Your task to perform on an android device: turn on priority inbox in the gmail app Image 0: 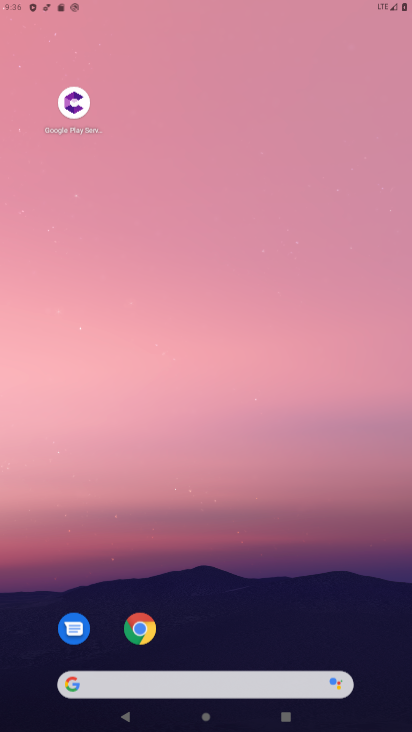
Step 0: press home button
Your task to perform on an android device: turn on priority inbox in the gmail app Image 1: 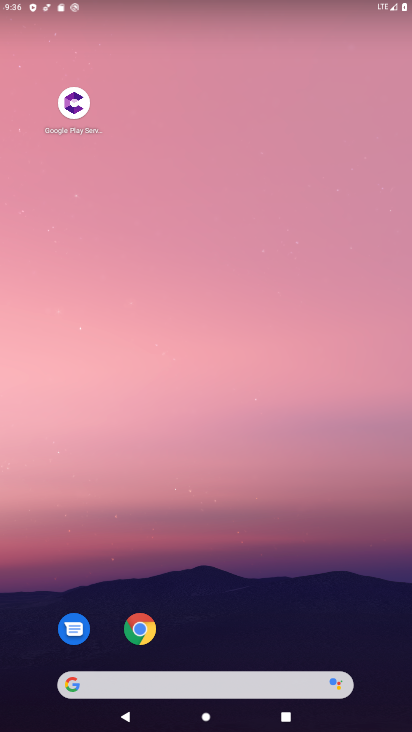
Step 1: drag from (279, 595) to (339, 5)
Your task to perform on an android device: turn on priority inbox in the gmail app Image 2: 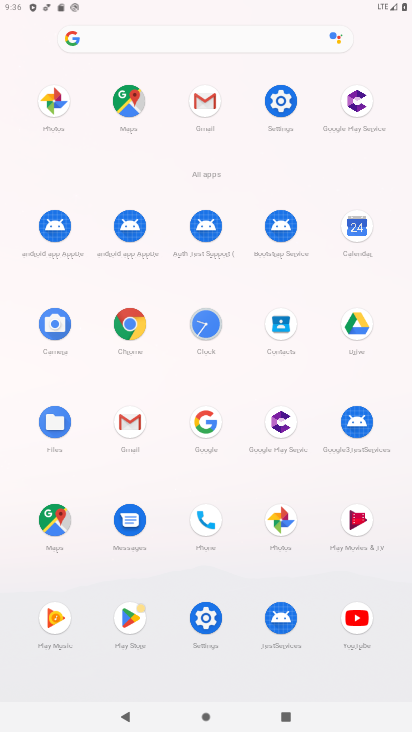
Step 2: click (203, 102)
Your task to perform on an android device: turn on priority inbox in the gmail app Image 3: 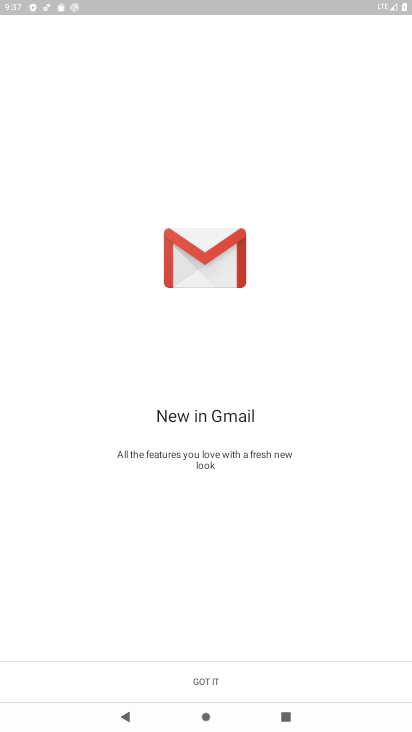
Step 3: click (209, 681)
Your task to perform on an android device: turn on priority inbox in the gmail app Image 4: 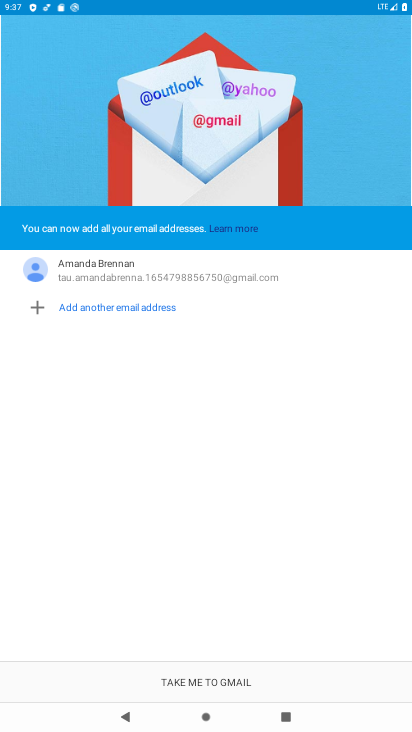
Step 4: click (209, 678)
Your task to perform on an android device: turn on priority inbox in the gmail app Image 5: 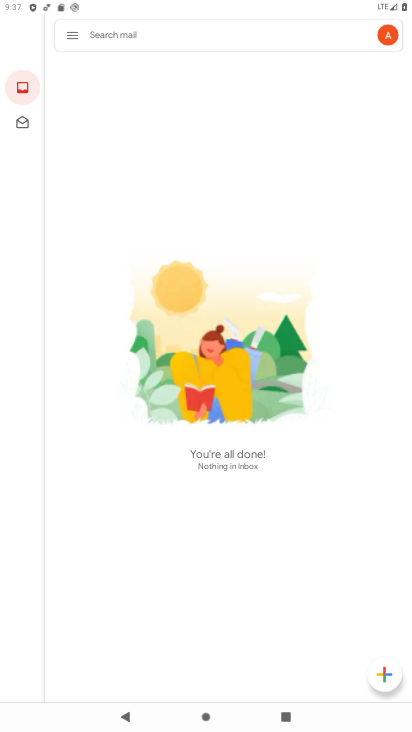
Step 5: click (69, 34)
Your task to perform on an android device: turn on priority inbox in the gmail app Image 6: 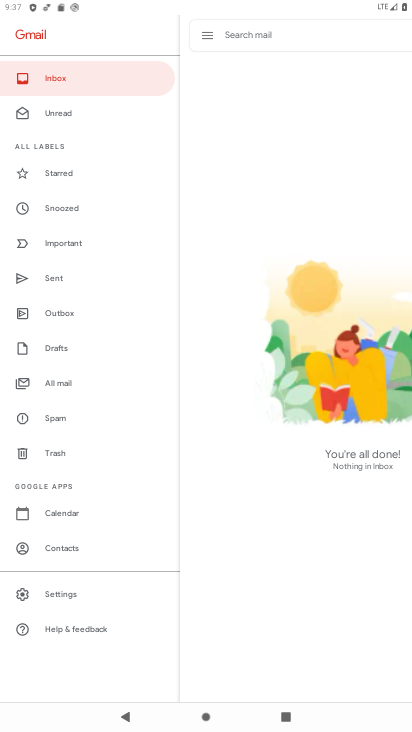
Step 6: click (57, 594)
Your task to perform on an android device: turn on priority inbox in the gmail app Image 7: 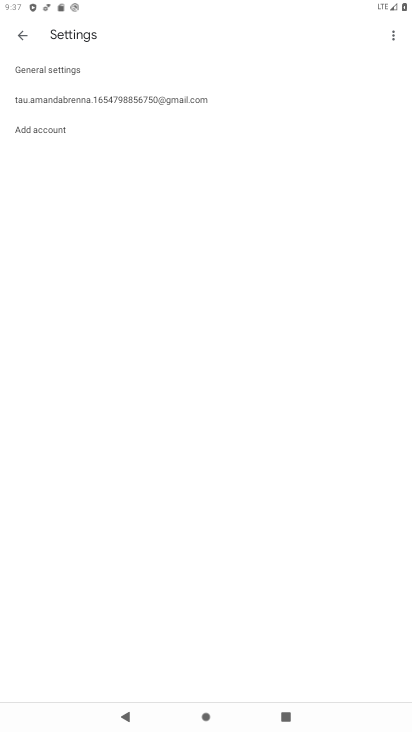
Step 7: click (53, 94)
Your task to perform on an android device: turn on priority inbox in the gmail app Image 8: 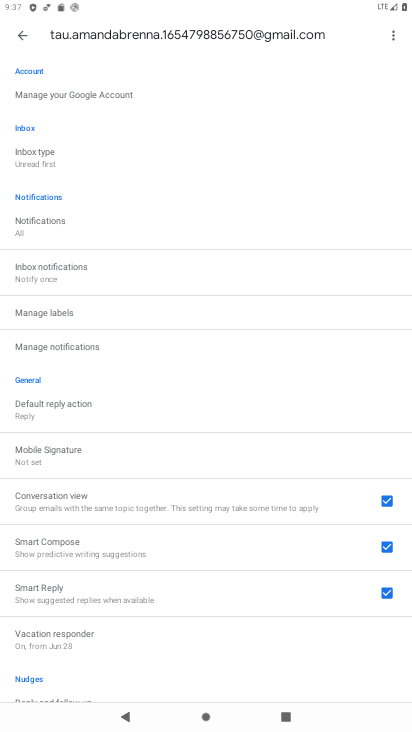
Step 8: click (37, 160)
Your task to perform on an android device: turn on priority inbox in the gmail app Image 9: 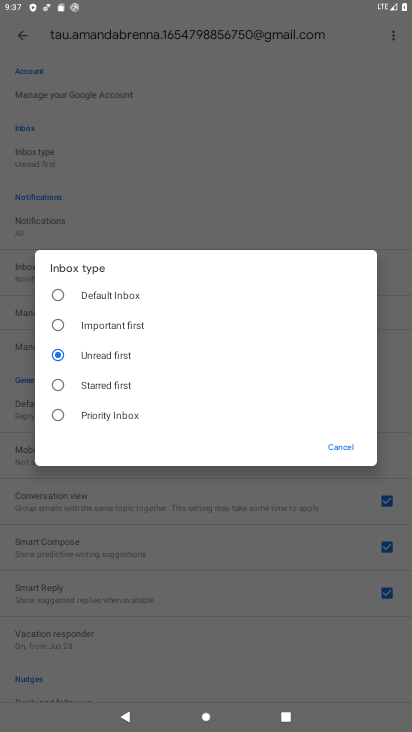
Step 9: click (56, 419)
Your task to perform on an android device: turn on priority inbox in the gmail app Image 10: 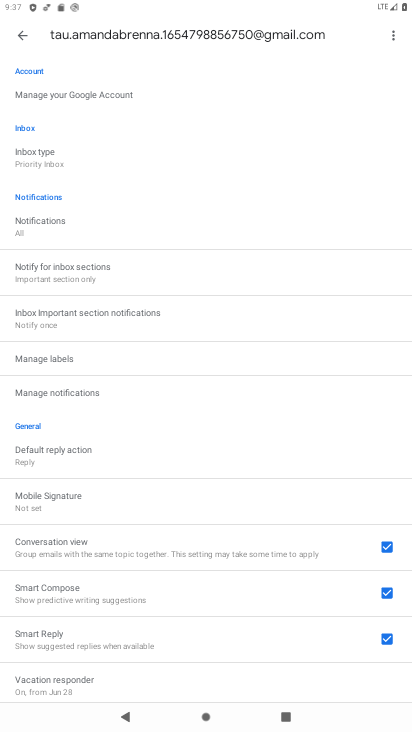
Step 10: task complete